Your task to perform on an android device: refresh tabs in the chrome app Image 0: 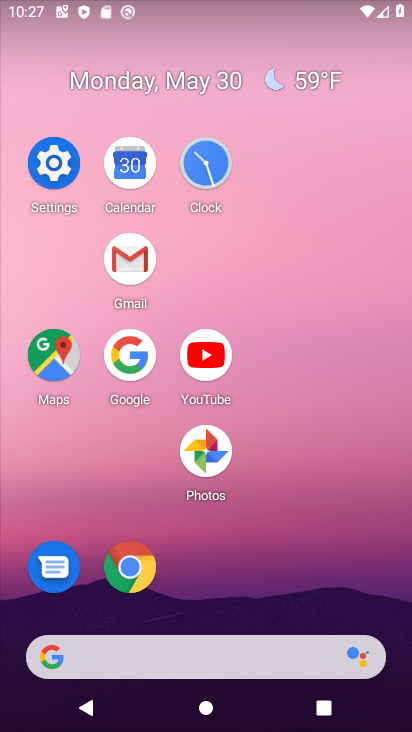
Step 0: click (140, 575)
Your task to perform on an android device: refresh tabs in the chrome app Image 1: 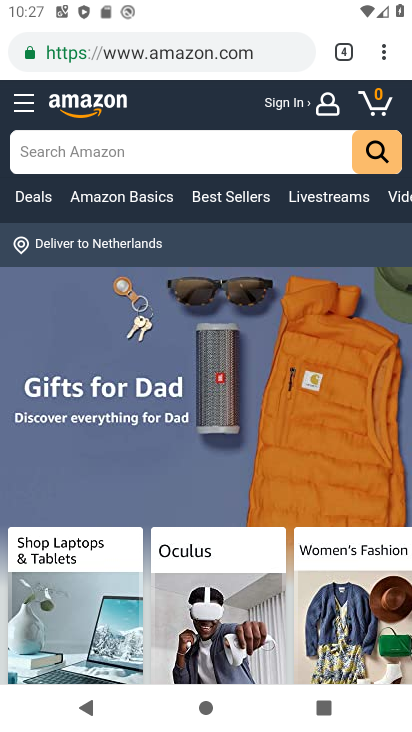
Step 1: click (386, 49)
Your task to perform on an android device: refresh tabs in the chrome app Image 2: 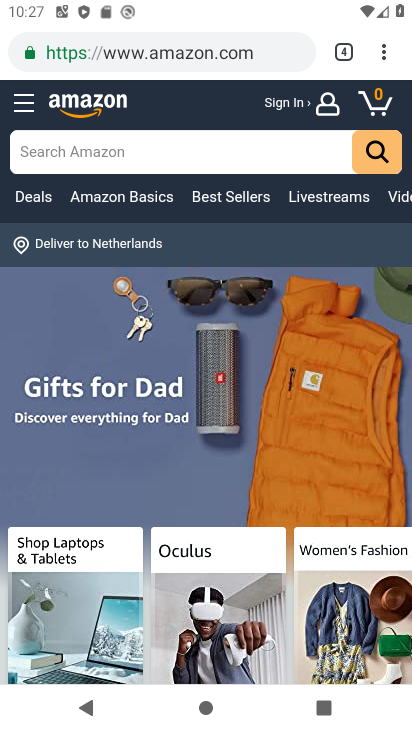
Step 2: click (387, 56)
Your task to perform on an android device: refresh tabs in the chrome app Image 3: 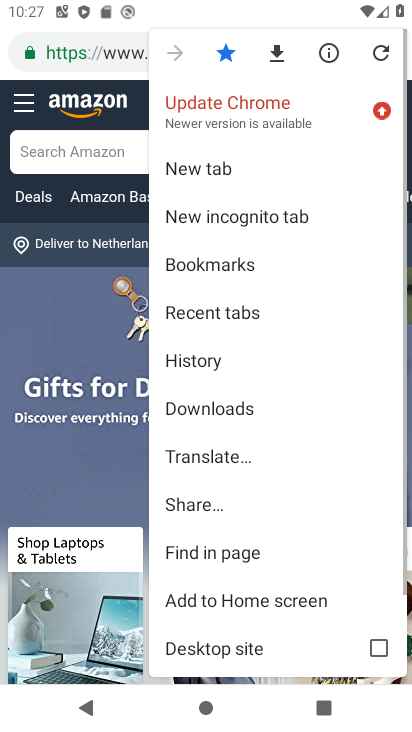
Step 3: click (381, 45)
Your task to perform on an android device: refresh tabs in the chrome app Image 4: 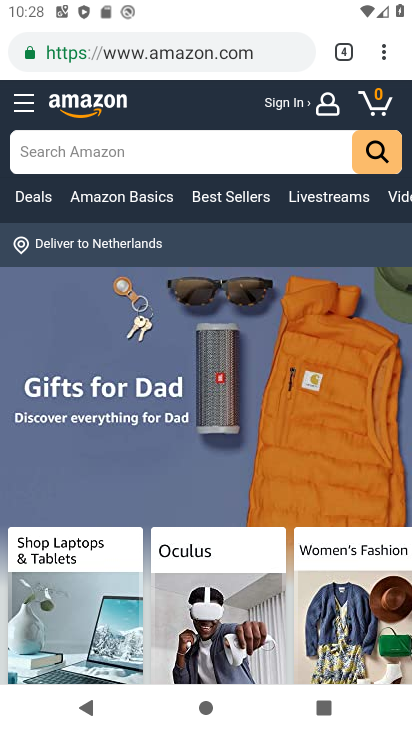
Step 4: click (393, 56)
Your task to perform on an android device: refresh tabs in the chrome app Image 5: 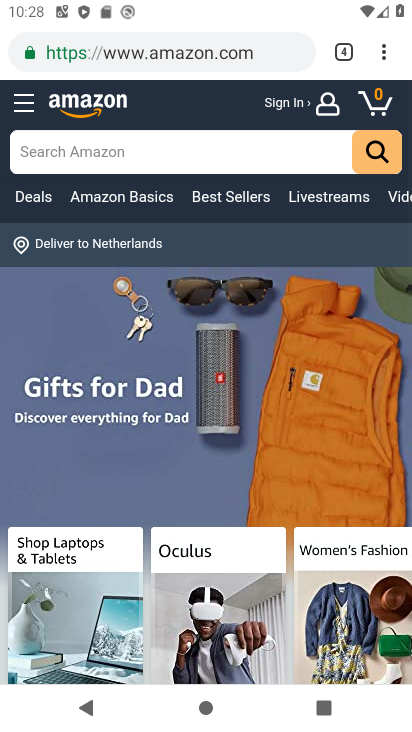
Step 5: click (384, 51)
Your task to perform on an android device: refresh tabs in the chrome app Image 6: 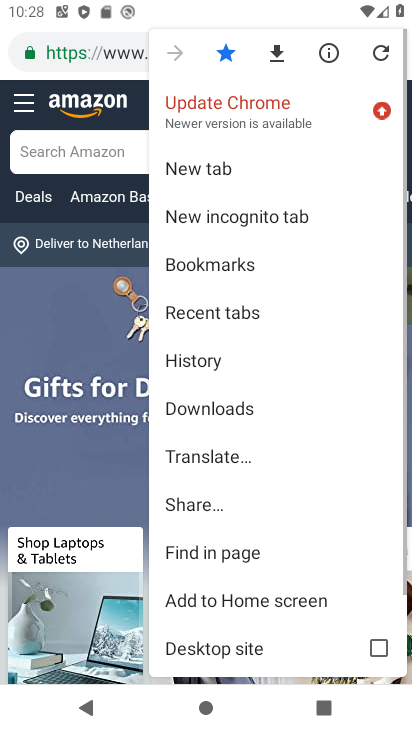
Step 6: click (389, 63)
Your task to perform on an android device: refresh tabs in the chrome app Image 7: 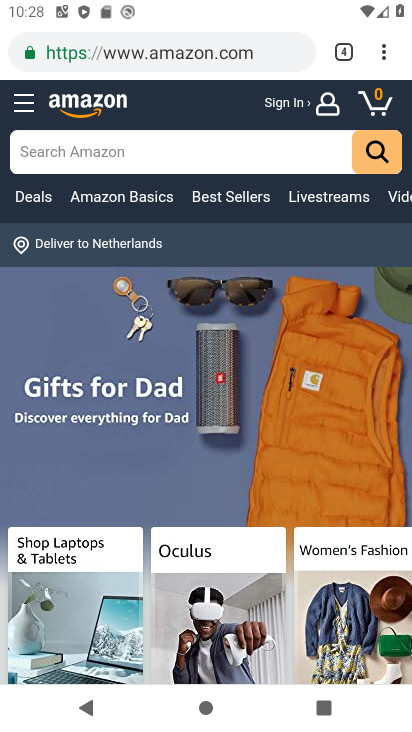
Step 7: task complete